Your task to perform on an android device: Show the shopping cart on amazon.com. Image 0: 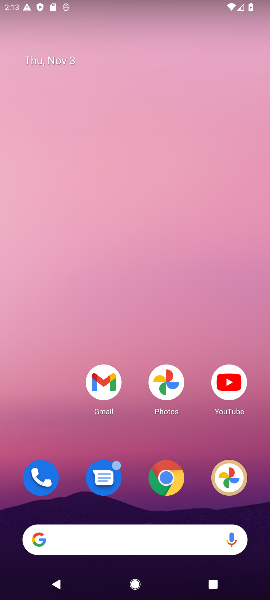
Step 0: click (163, 481)
Your task to perform on an android device: Show the shopping cart on amazon.com. Image 1: 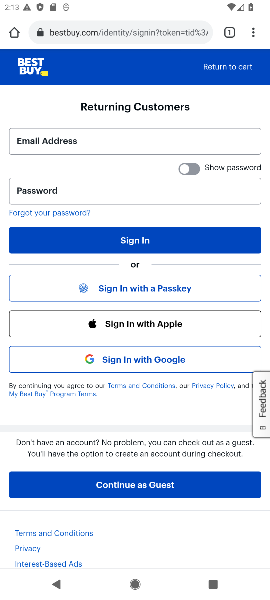
Step 1: click (107, 27)
Your task to perform on an android device: Show the shopping cart on amazon.com. Image 2: 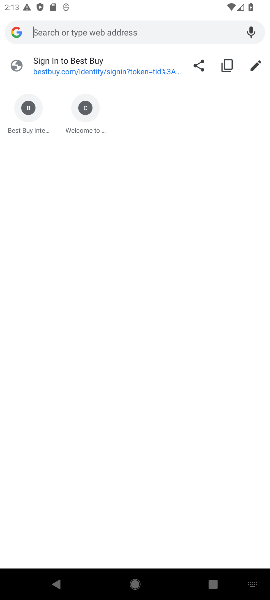
Step 2: type "amazon.com"
Your task to perform on an android device: Show the shopping cart on amazon.com. Image 3: 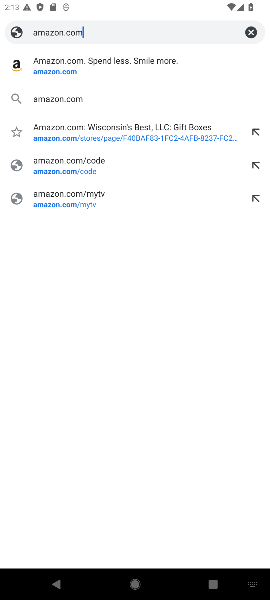
Step 3: click (47, 77)
Your task to perform on an android device: Show the shopping cart on amazon.com. Image 4: 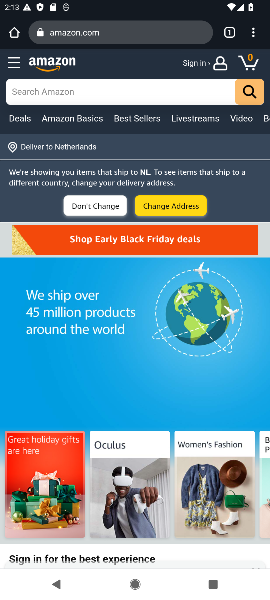
Step 4: click (246, 57)
Your task to perform on an android device: Show the shopping cart on amazon.com. Image 5: 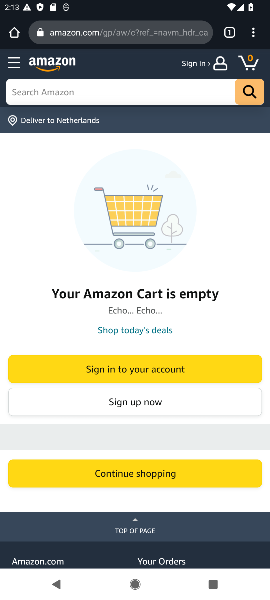
Step 5: task complete